Your task to perform on an android device: Search for a new bronzer Image 0: 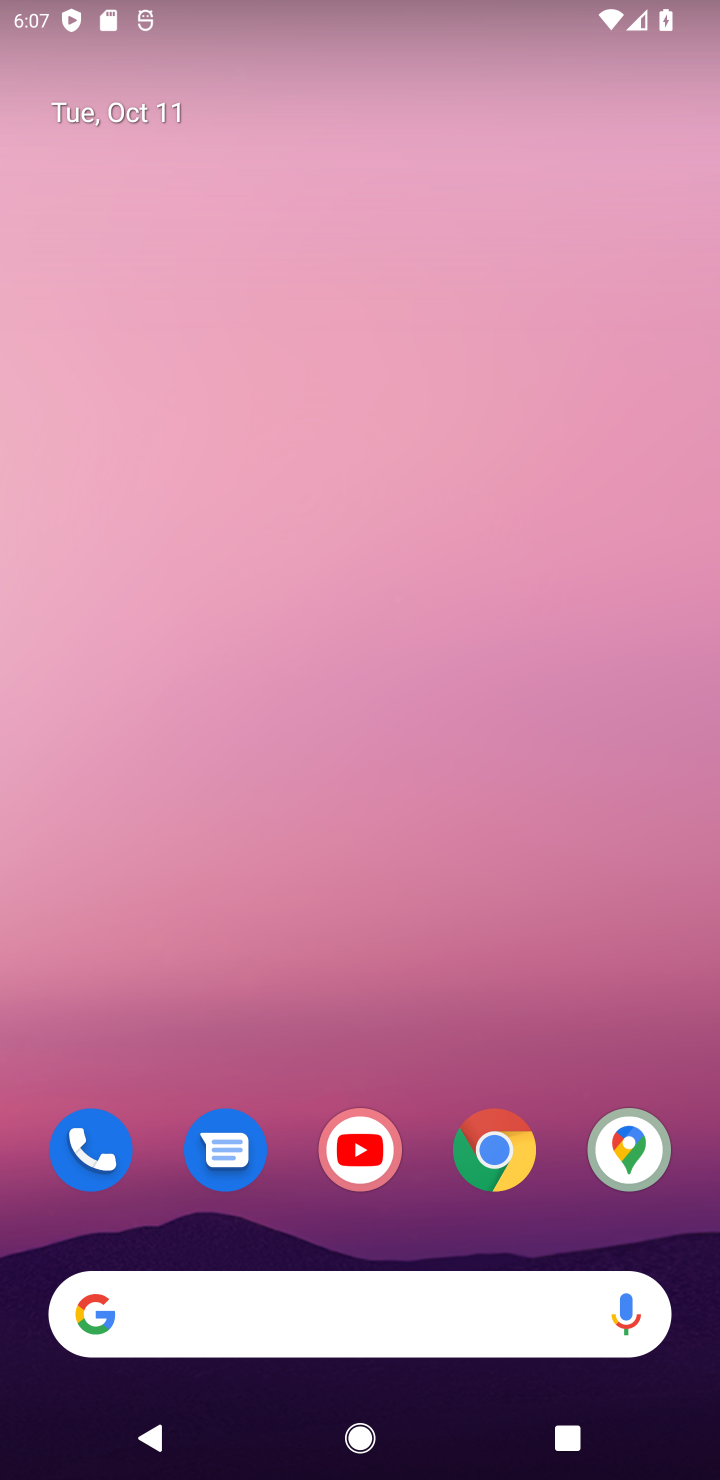
Step 0: click (506, 1161)
Your task to perform on an android device: Search for a new bronzer Image 1: 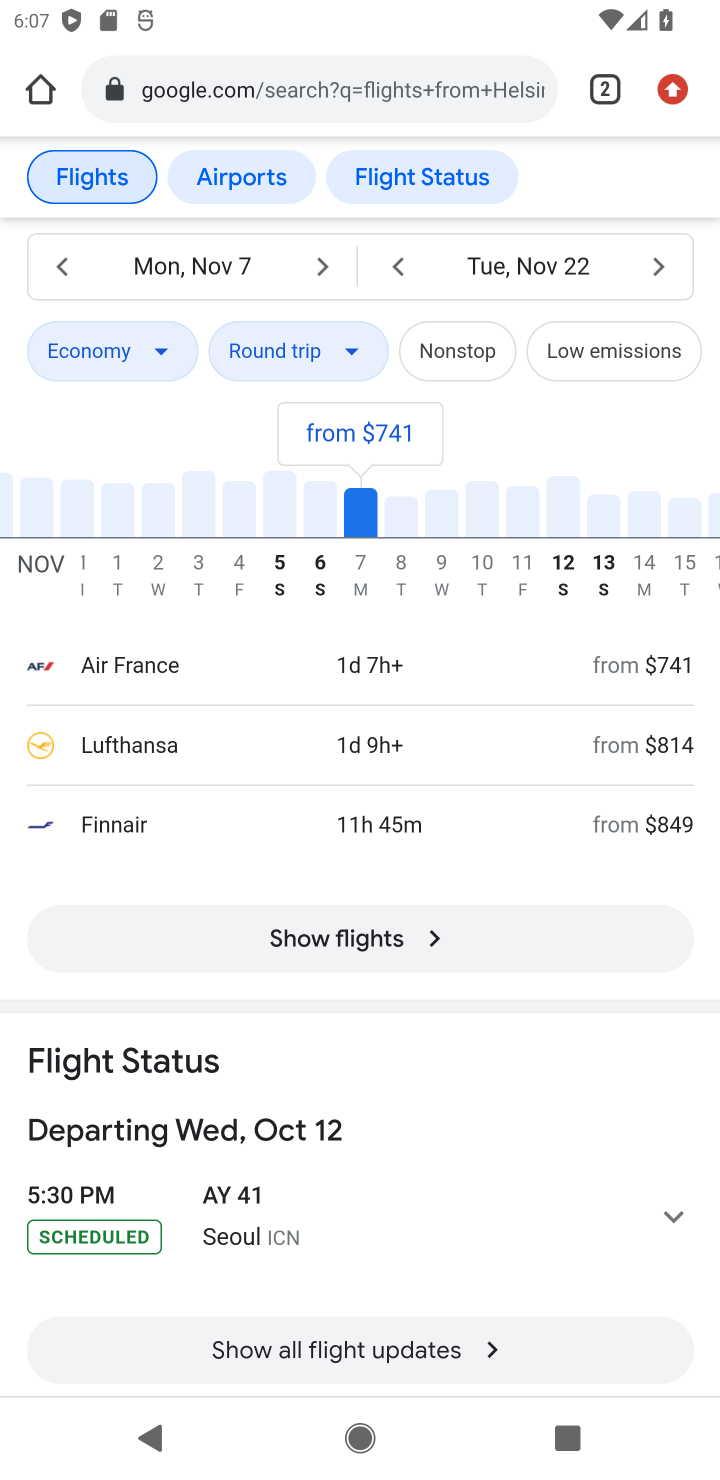
Step 1: click (374, 95)
Your task to perform on an android device: Search for a new bronzer Image 2: 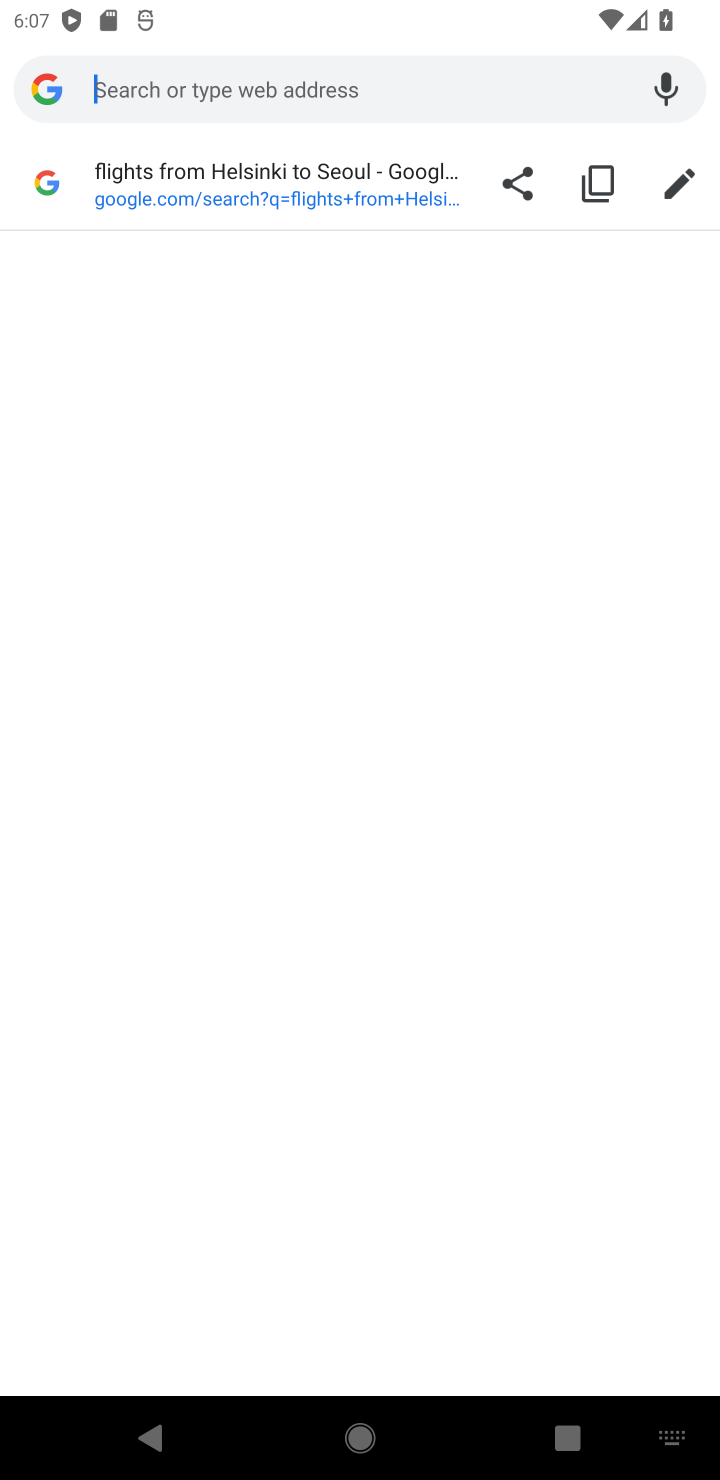
Step 2: type " new bronzer"
Your task to perform on an android device: Search for a new bronzer Image 3: 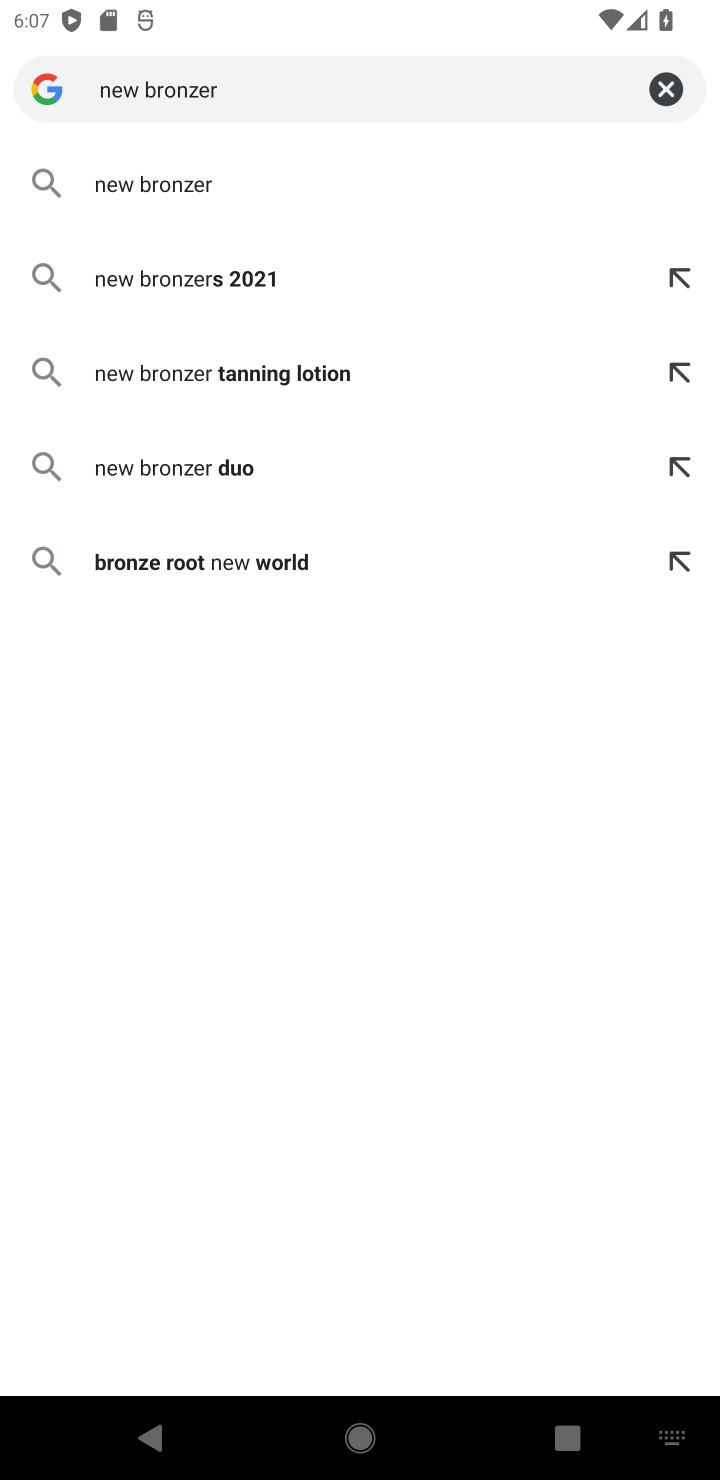
Step 3: click (110, 193)
Your task to perform on an android device: Search for a new bronzer Image 4: 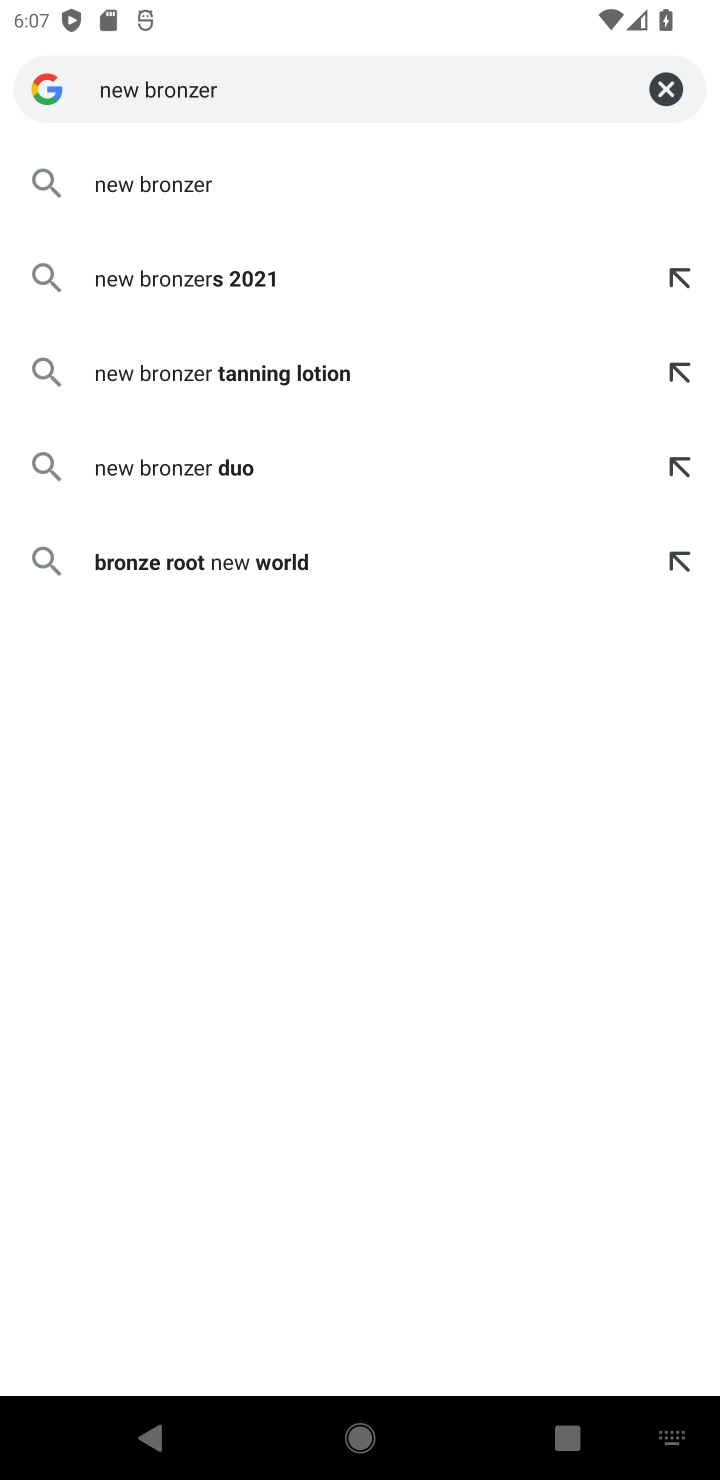
Step 4: click (138, 192)
Your task to perform on an android device: Search for a new bronzer Image 5: 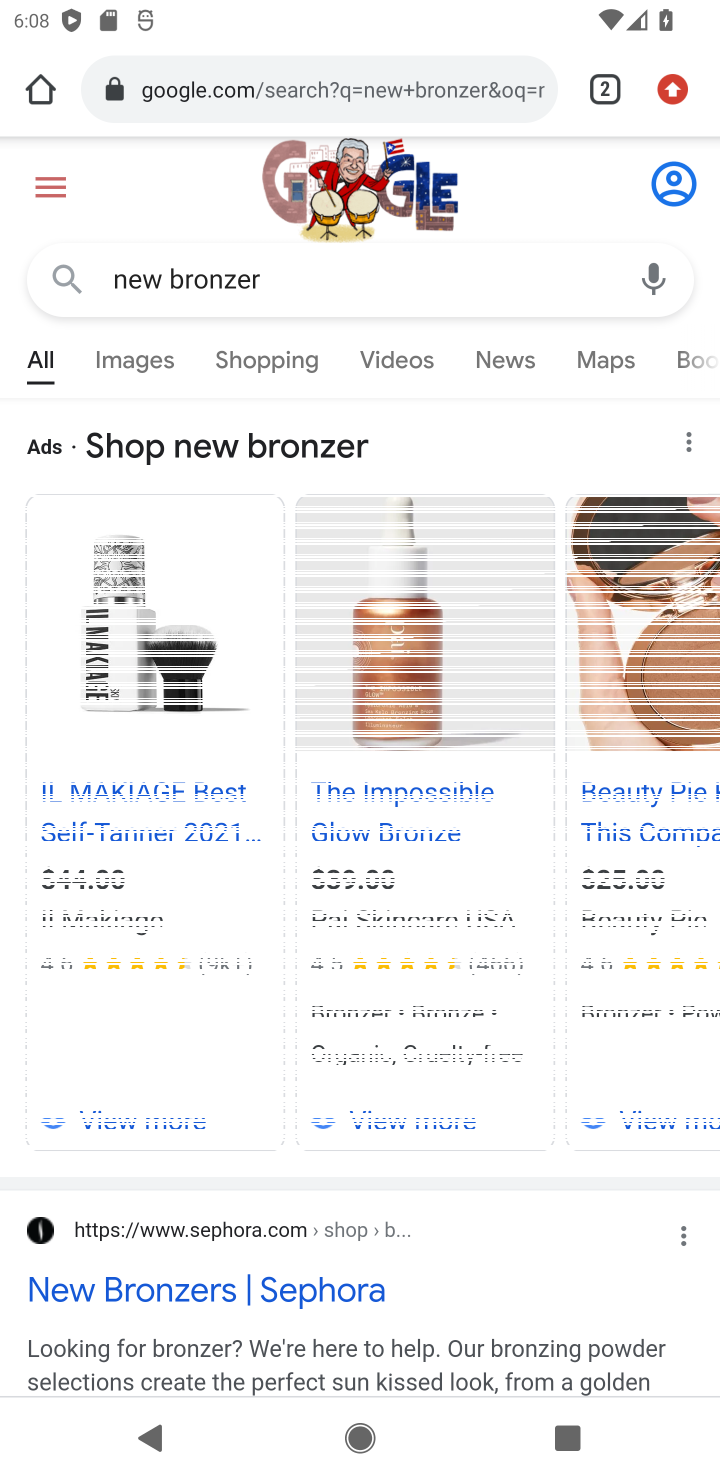
Step 5: task complete